Your task to perform on an android device: visit the assistant section in the google photos Image 0: 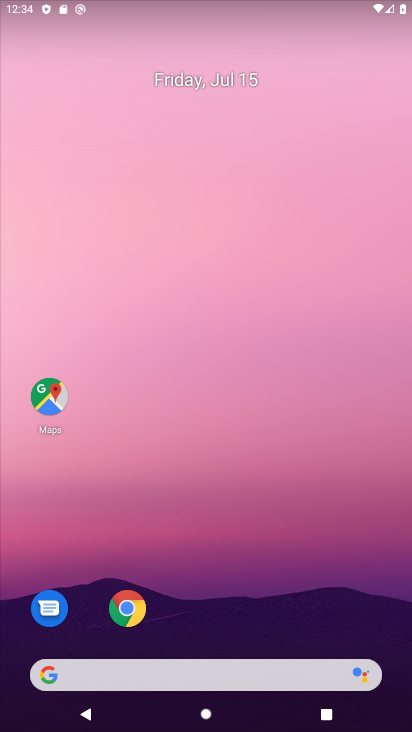
Step 0: drag from (209, 676) to (129, 7)
Your task to perform on an android device: visit the assistant section in the google photos Image 1: 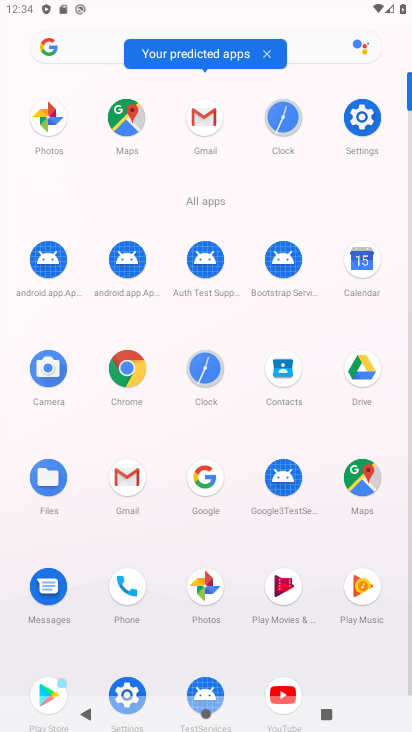
Step 1: click (201, 589)
Your task to perform on an android device: visit the assistant section in the google photos Image 2: 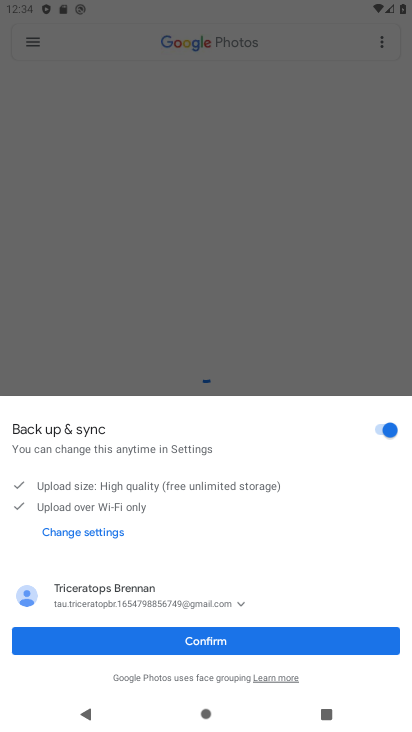
Step 2: click (199, 646)
Your task to perform on an android device: visit the assistant section in the google photos Image 3: 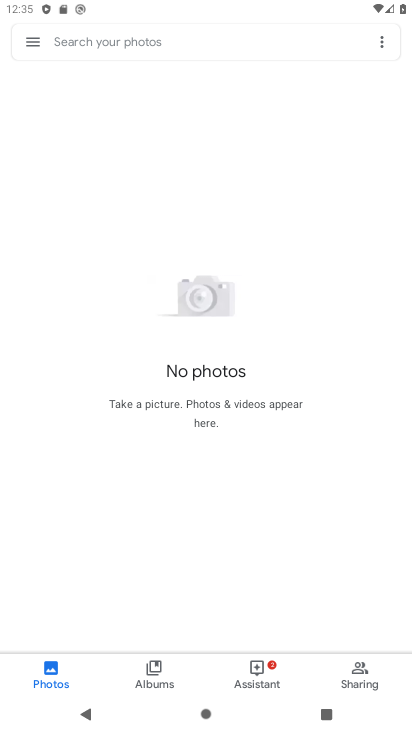
Step 3: click (268, 684)
Your task to perform on an android device: visit the assistant section in the google photos Image 4: 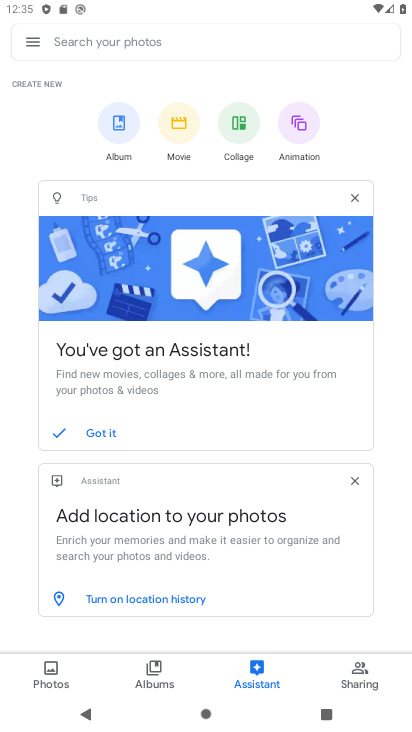
Step 4: task complete